Your task to perform on an android device: Open accessibility settings Image 0: 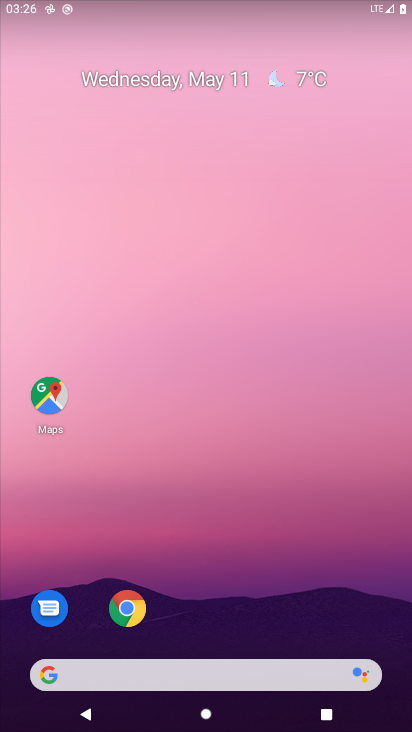
Step 0: drag from (238, 631) to (277, 183)
Your task to perform on an android device: Open accessibility settings Image 1: 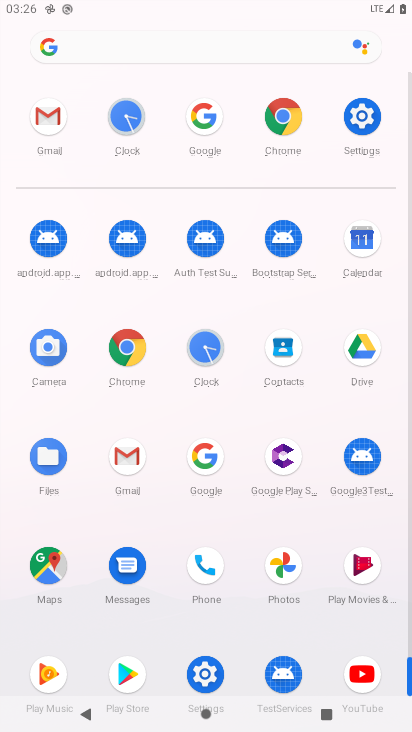
Step 1: click (364, 109)
Your task to perform on an android device: Open accessibility settings Image 2: 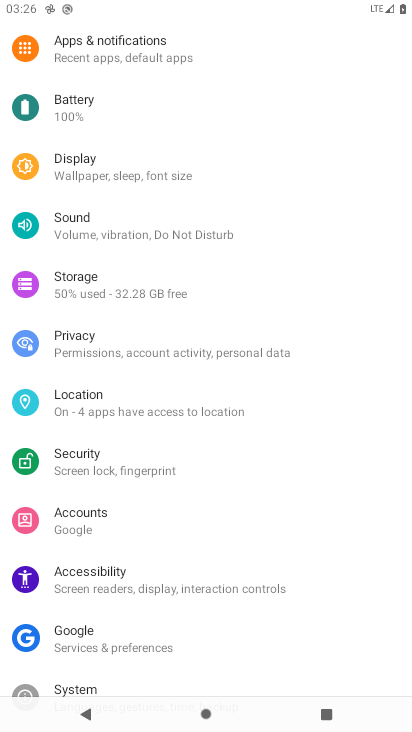
Step 2: click (138, 572)
Your task to perform on an android device: Open accessibility settings Image 3: 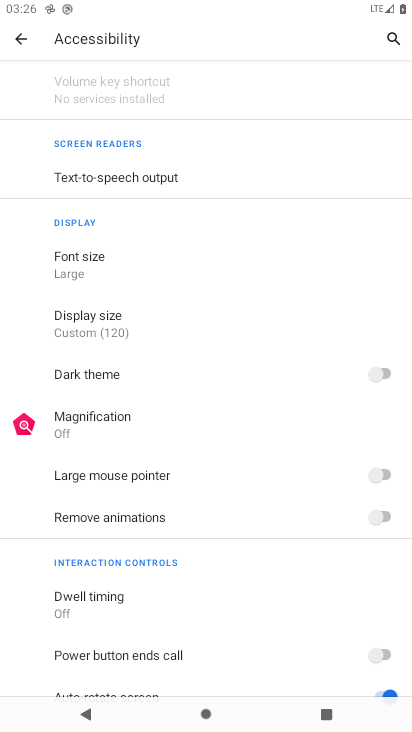
Step 3: task complete